Your task to perform on an android device: set an alarm Image 0: 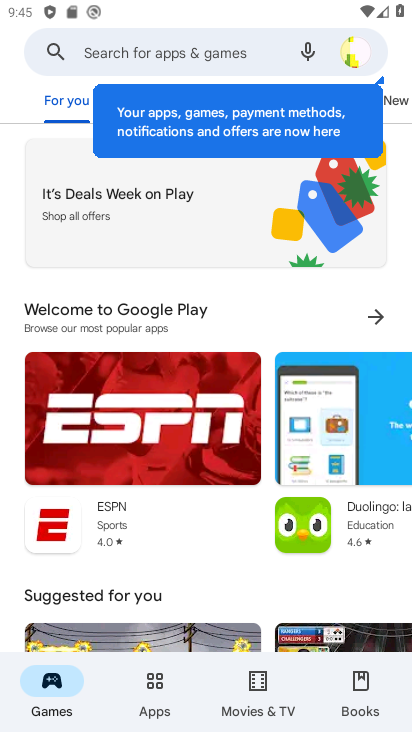
Step 0: press home button
Your task to perform on an android device: set an alarm Image 1: 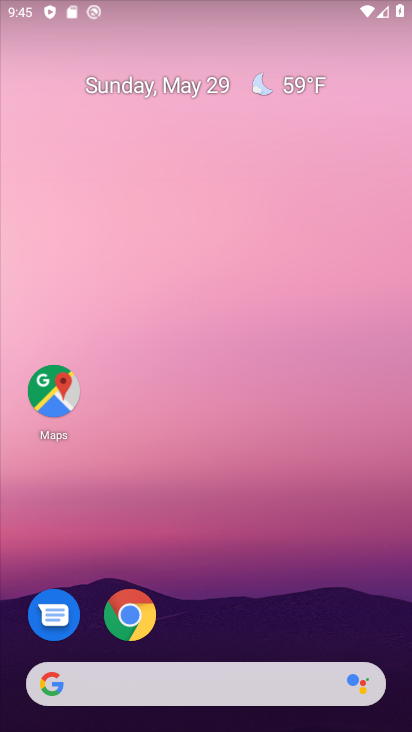
Step 1: drag from (214, 569) to (182, 96)
Your task to perform on an android device: set an alarm Image 2: 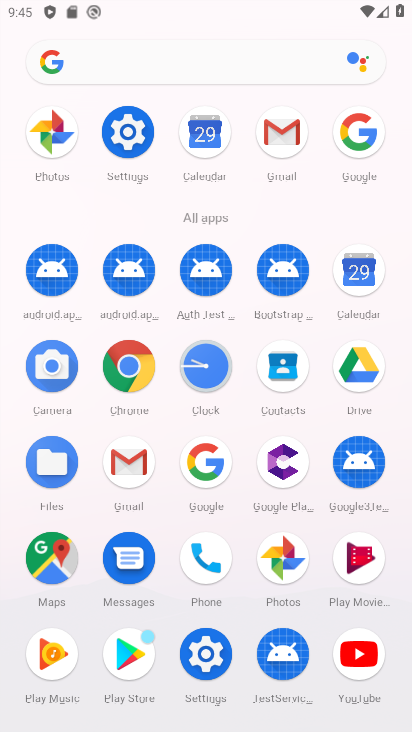
Step 2: click (207, 374)
Your task to perform on an android device: set an alarm Image 3: 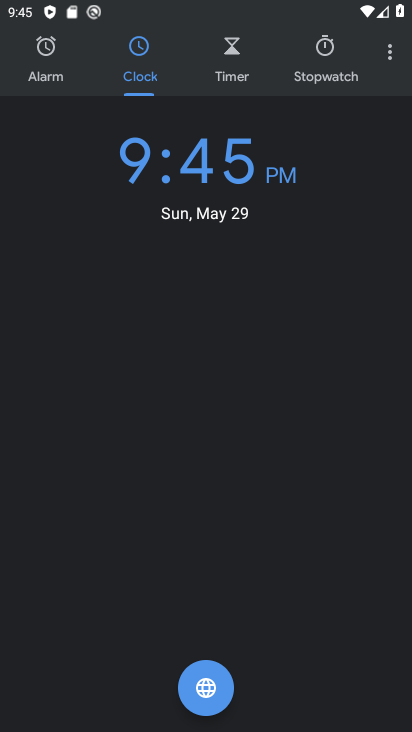
Step 3: click (61, 69)
Your task to perform on an android device: set an alarm Image 4: 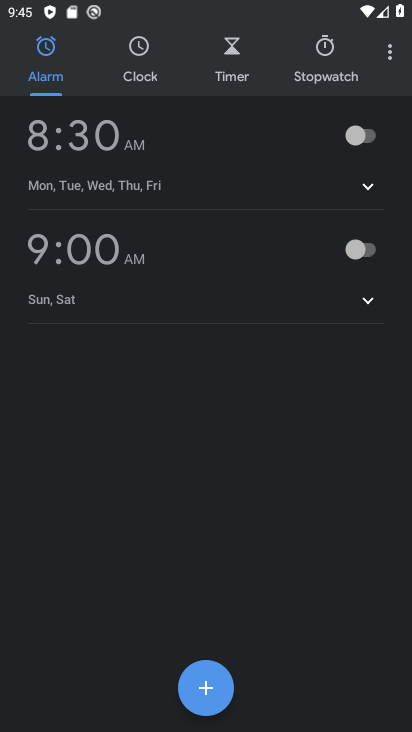
Step 4: click (368, 137)
Your task to perform on an android device: set an alarm Image 5: 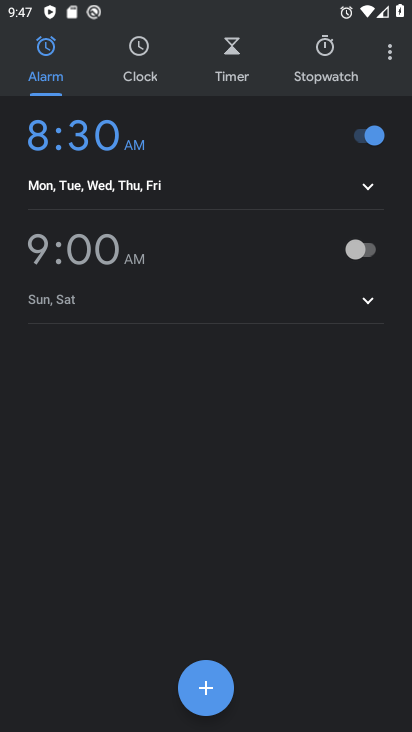
Step 5: task complete